Your task to perform on an android device: turn off airplane mode Image 0: 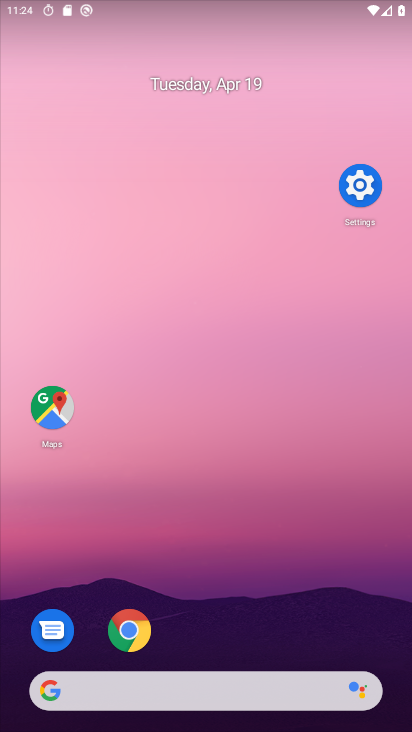
Step 0: drag from (278, 561) to (379, 80)
Your task to perform on an android device: turn off airplane mode Image 1: 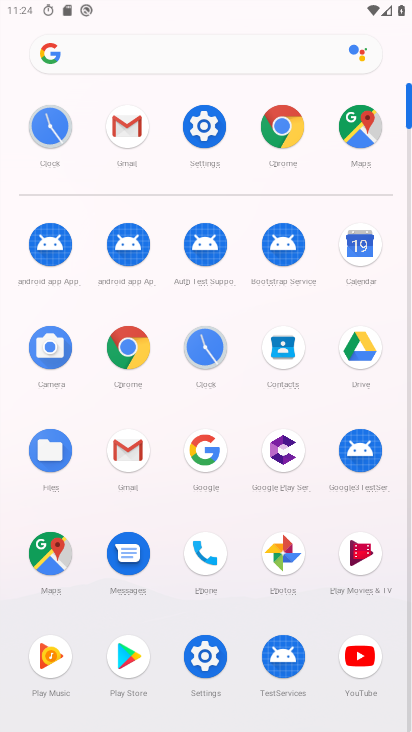
Step 1: click (208, 130)
Your task to perform on an android device: turn off airplane mode Image 2: 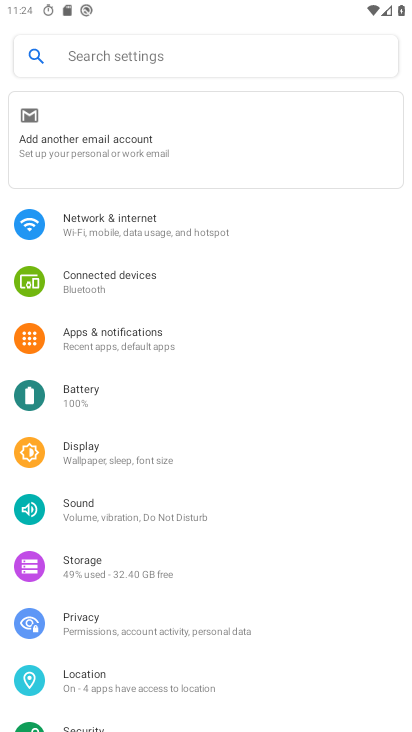
Step 2: click (243, 229)
Your task to perform on an android device: turn off airplane mode Image 3: 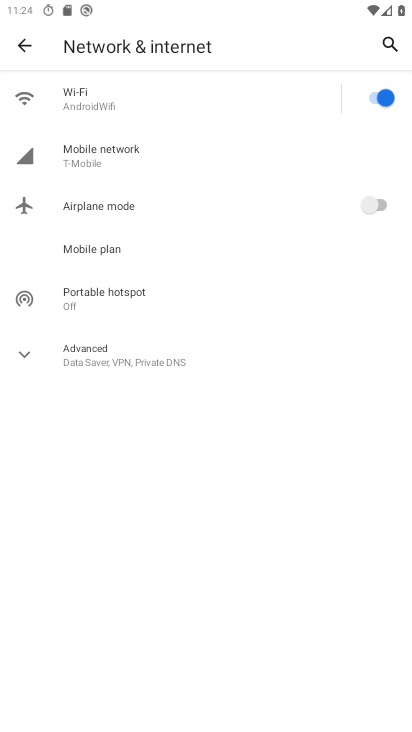
Step 3: task complete